Your task to perform on an android device: Open calendar and show me the third week of next month Image 0: 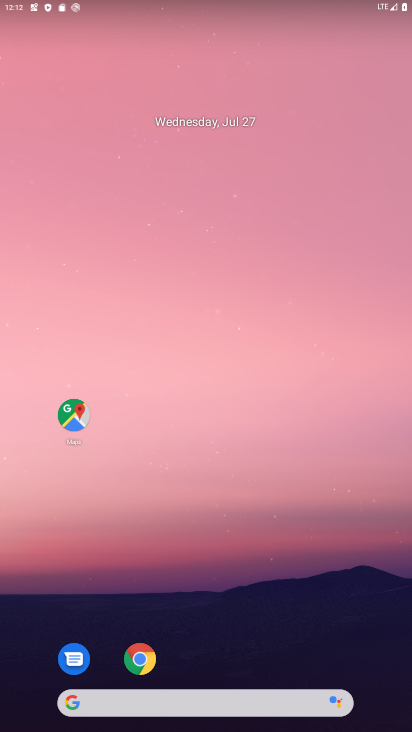
Step 0: drag from (168, 615) to (205, 38)
Your task to perform on an android device: Open calendar and show me the third week of next month Image 1: 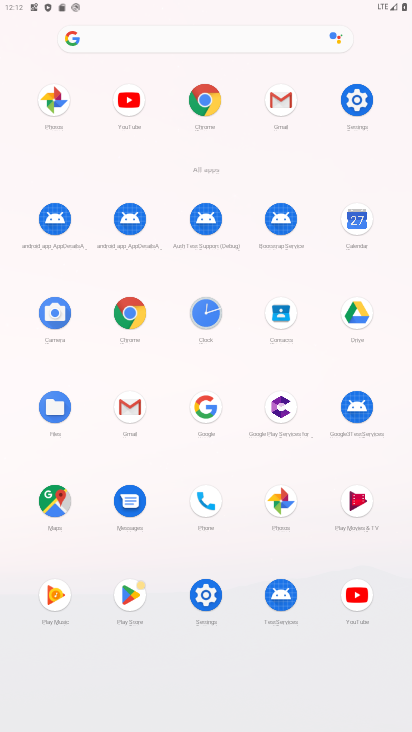
Step 1: click (353, 224)
Your task to perform on an android device: Open calendar and show me the third week of next month Image 2: 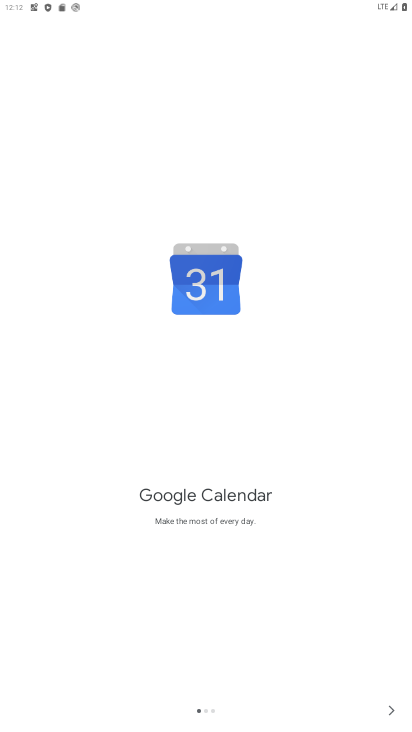
Step 2: click (386, 712)
Your task to perform on an android device: Open calendar and show me the third week of next month Image 3: 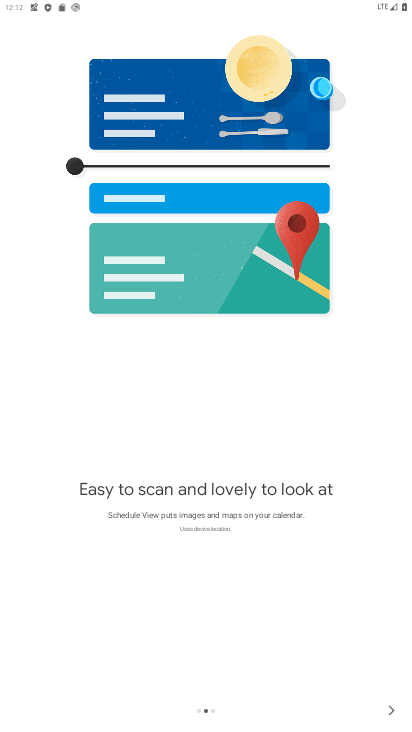
Step 3: click (386, 712)
Your task to perform on an android device: Open calendar and show me the third week of next month Image 4: 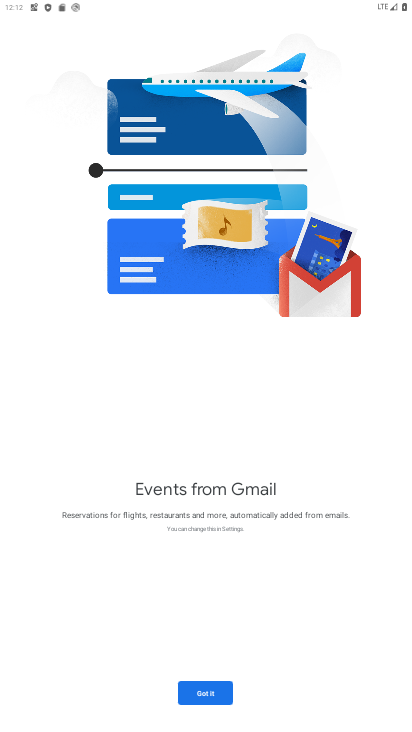
Step 4: click (183, 696)
Your task to perform on an android device: Open calendar and show me the third week of next month Image 5: 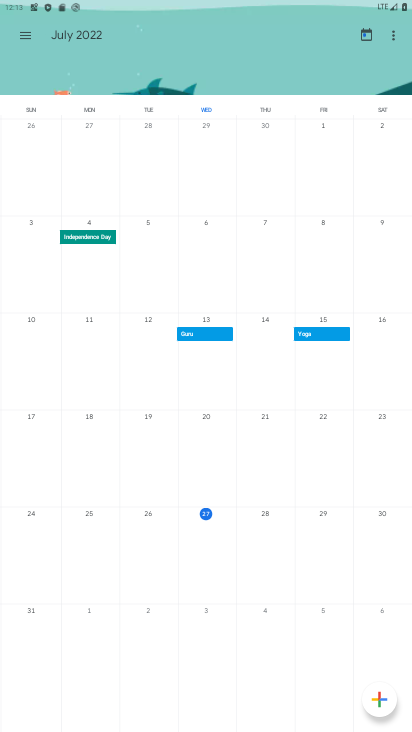
Step 5: drag from (136, 671) to (239, 83)
Your task to perform on an android device: Open calendar and show me the third week of next month Image 6: 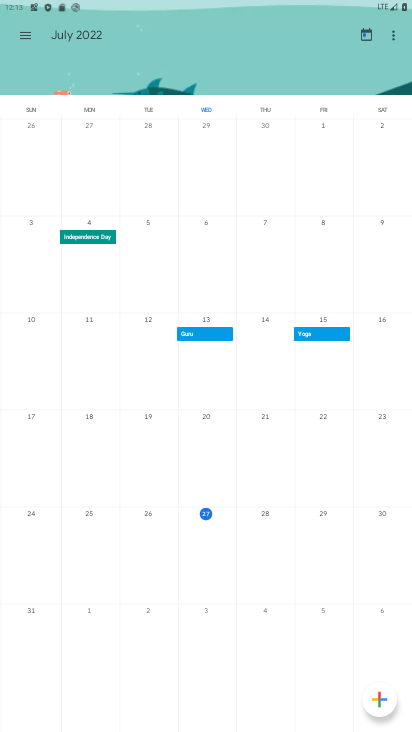
Step 6: click (329, 423)
Your task to perform on an android device: Open calendar and show me the third week of next month Image 7: 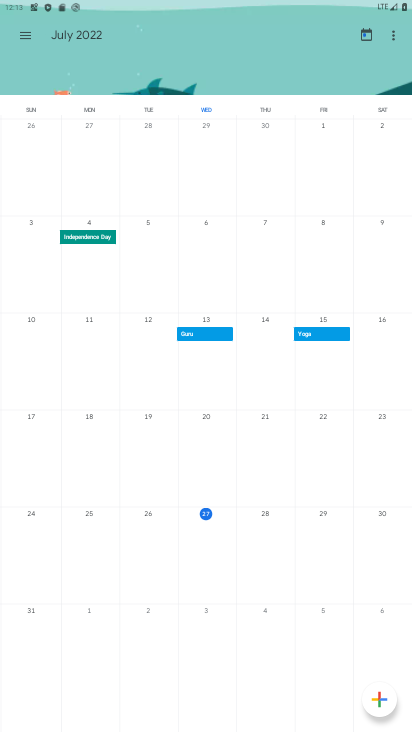
Step 7: drag from (334, 424) to (22, 515)
Your task to perform on an android device: Open calendar and show me the third week of next month Image 8: 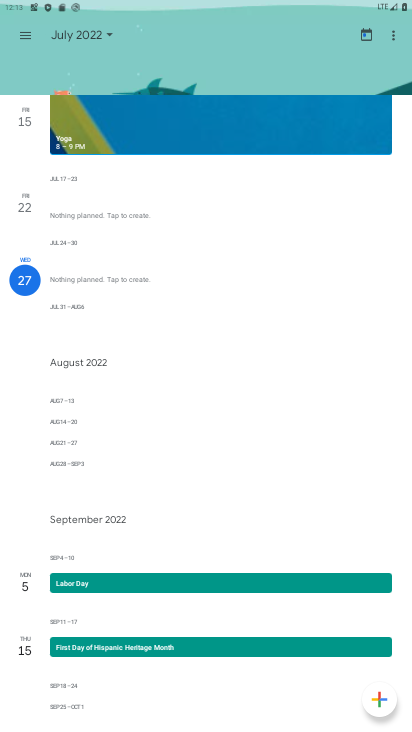
Step 8: click (135, 112)
Your task to perform on an android device: Open calendar and show me the third week of next month Image 9: 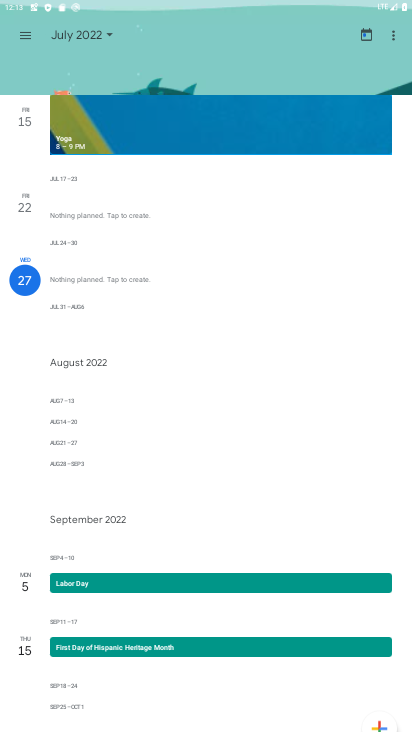
Step 9: click (81, 26)
Your task to perform on an android device: Open calendar and show me the third week of next month Image 10: 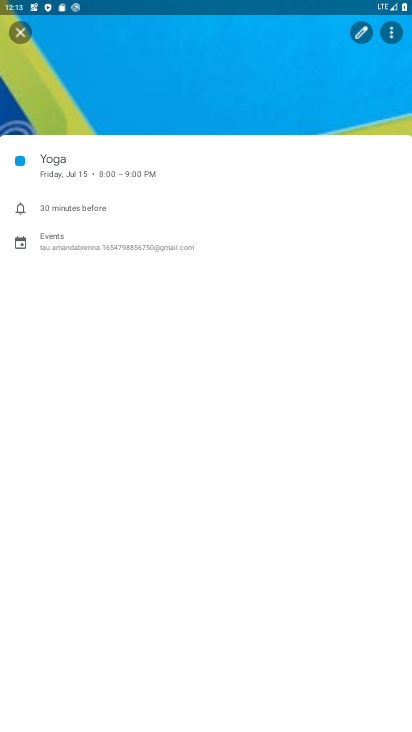
Step 10: click (13, 29)
Your task to perform on an android device: Open calendar and show me the third week of next month Image 11: 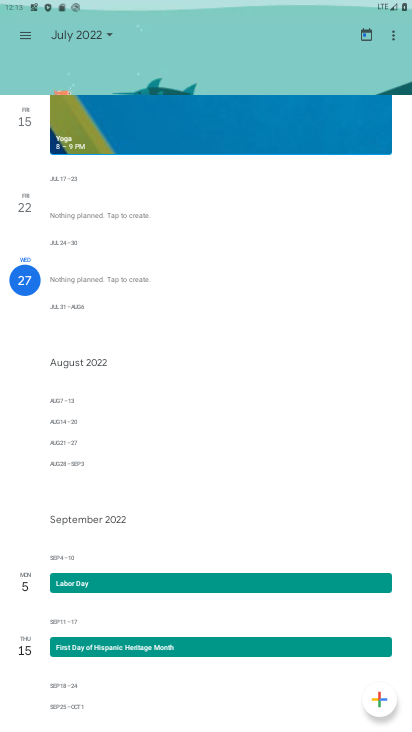
Step 11: click (101, 30)
Your task to perform on an android device: Open calendar and show me the third week of next month Image 12: 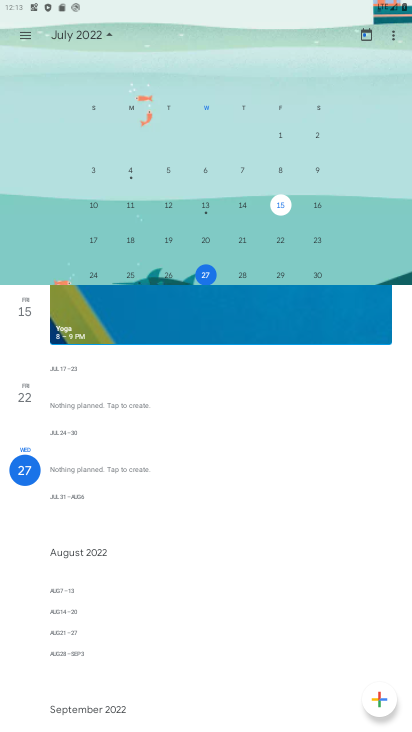
Step 12: click (325, 212)
Your task to perform on an android device: Open calendar and show me the third week of next month Image 13: 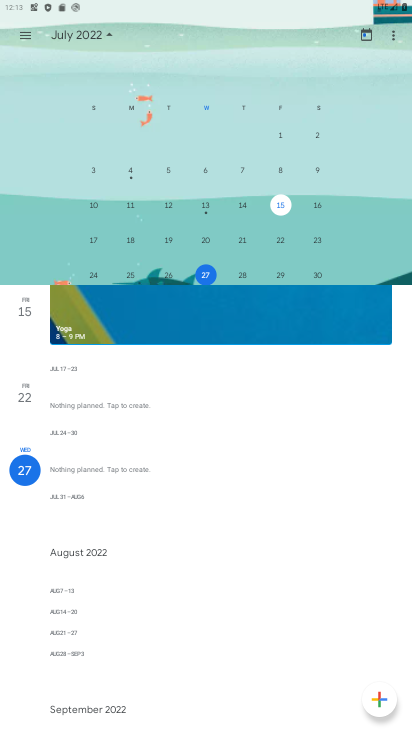
Step 13: drag from (326, 211) to (0, 148)
Your task to perform on an android device: Open calendar and show me the third week of next month Image 14: 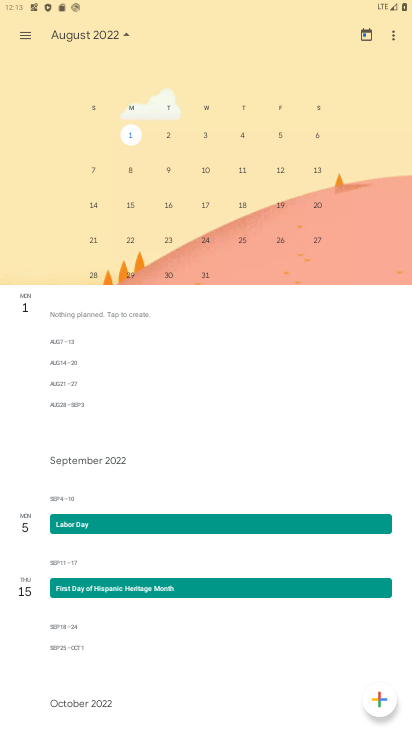
Step 14: click (325, 177)
Your task to perform on an android device: Open calendar and show me the third week of next month Image 15: 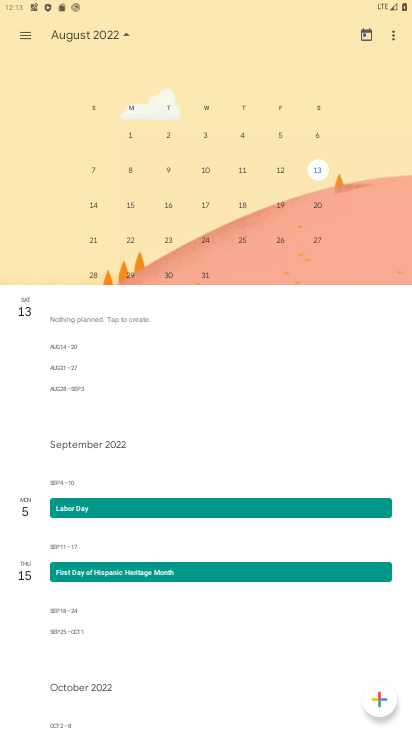
Step 15: task complete